Your task to perform on an android device: Go to Reddit.com Image 0: 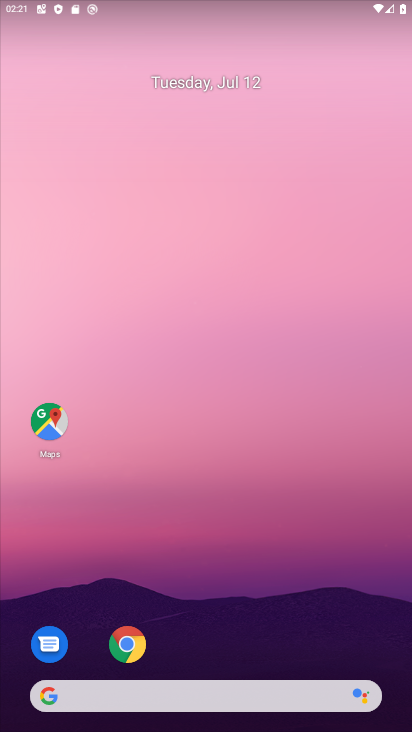
Step 0: click (140, 646)
Your task to perform on an android device: Go to Reddit.com Image 1: 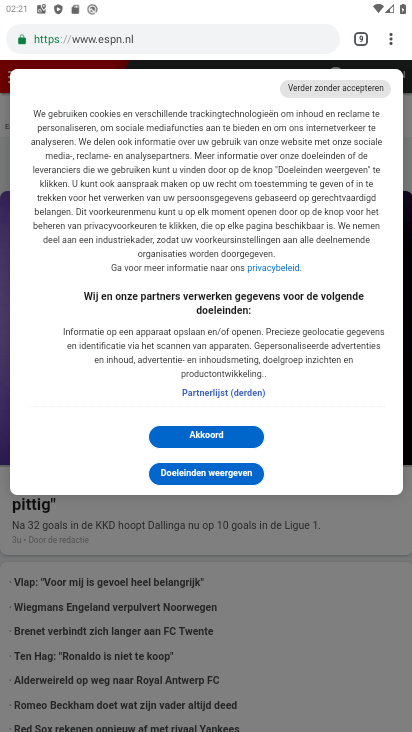
Step 1: click (202, 444)
Your task to perform on an android device: Go to Reddit.com Image 2: 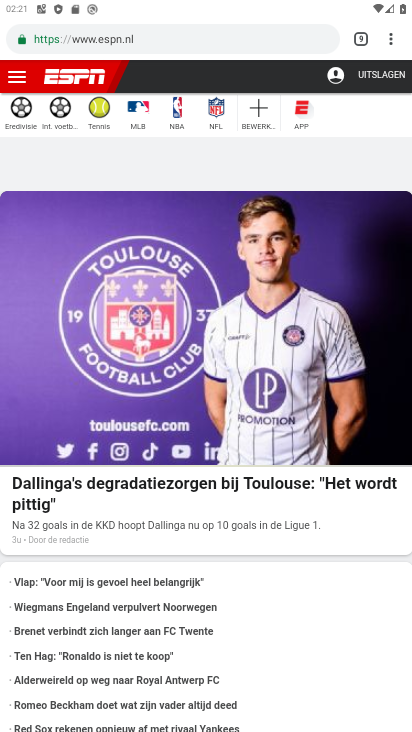
Step 2: click (346, 37)
Your task to perform on an android device: Go to Reddit.com Image 3: 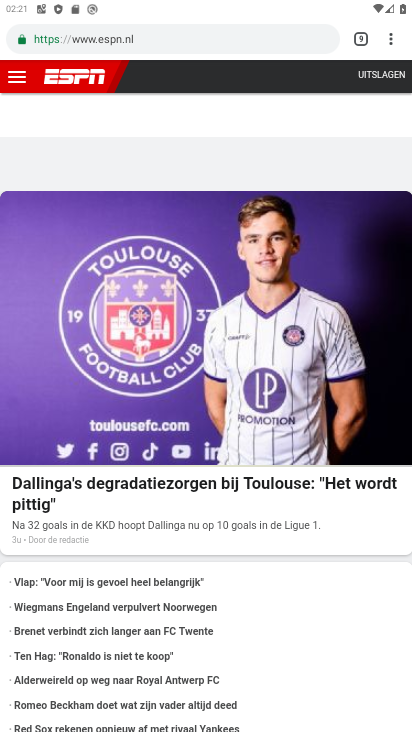
Step 3: click (355, 39)
Your task to perform on an android device: Go to Reddit.com Image 4: 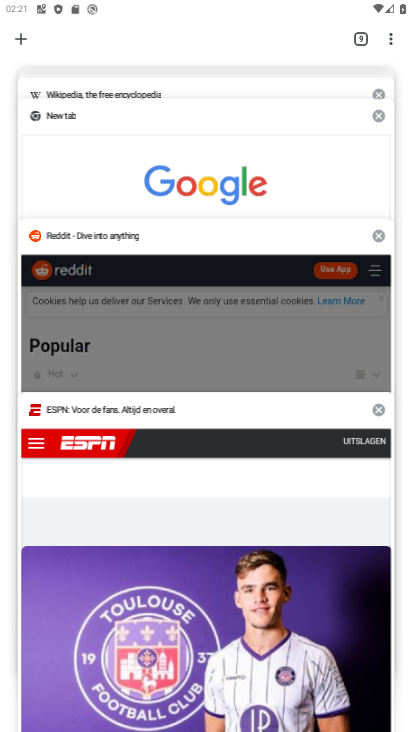
Step 4: click (32, 42)
Your task to perform on an android device: Go to Reddit.com Image 5: 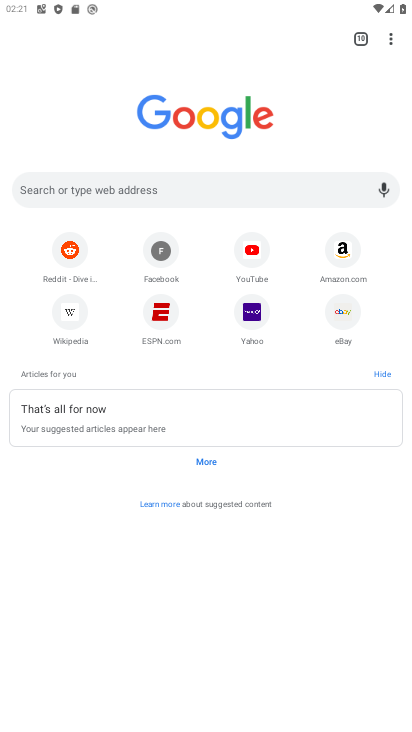
Step 5: click (72, 261)
Your task to perform on an android device: Go to Reddit.com Image 6: 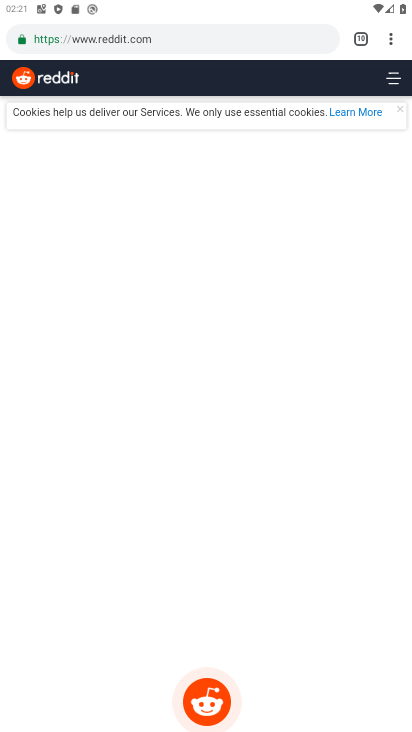
Step 6: task complete